Your task to perform on an android device: turn pop-ups off in chrome Image 0: 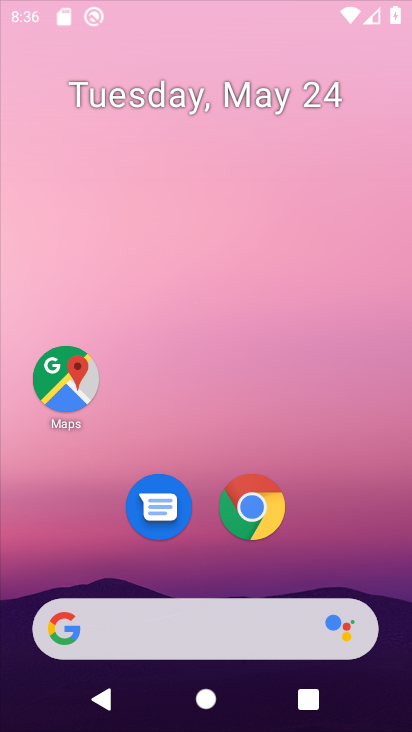
Step 0: drag from (338, 84) to (339, 32)
Your task to perform on an android device: turn pop-ups off in chrome Image 1: 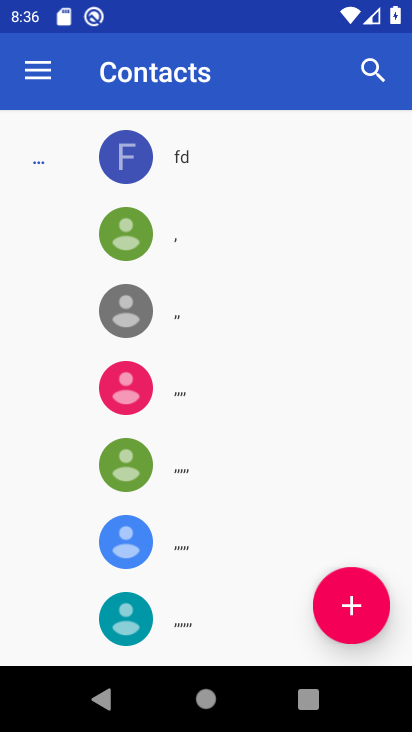
Step 1: press home button
Your task to perform on an android device: turn pop-ups off in chrome Image 2: 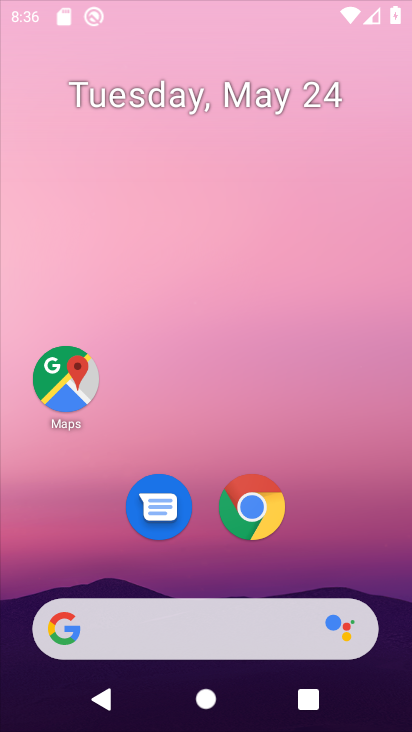
Step 2: drag from (205, 563) to (319, 47)
Your task to perform on an android device: turn pop-ups off in chrome Image 3: 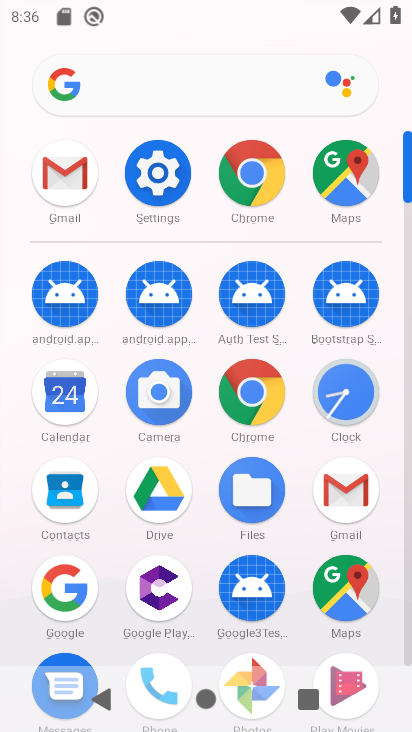
Step 3: click (255, 170)
Your task to perform on an android device: turn pop-ups off in chrome Image 4: 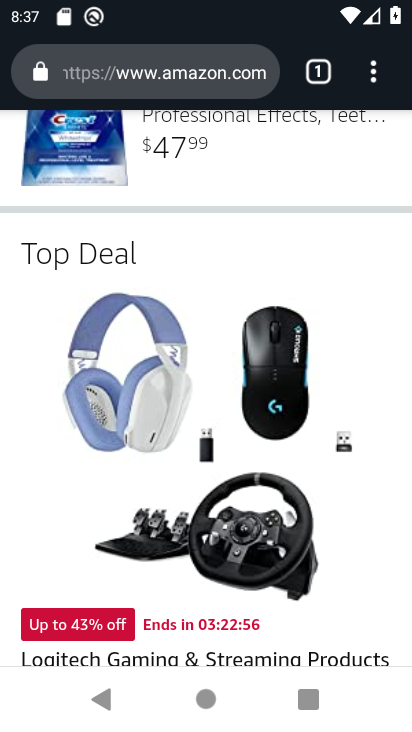
Step 4: drag from (259, 215) to (120, 727)
Your task to perform on an android device: turn pop-ups off in chrome Image 5: 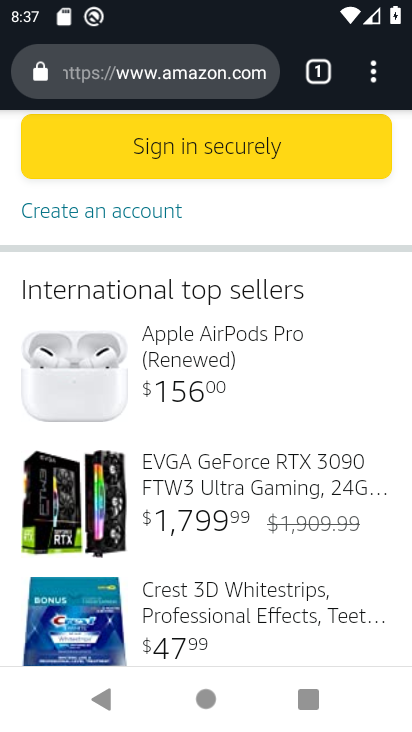
Step 5: click (382, 73)
Your task to perform on an android device: turn pop-ups off in chrome Image 6: 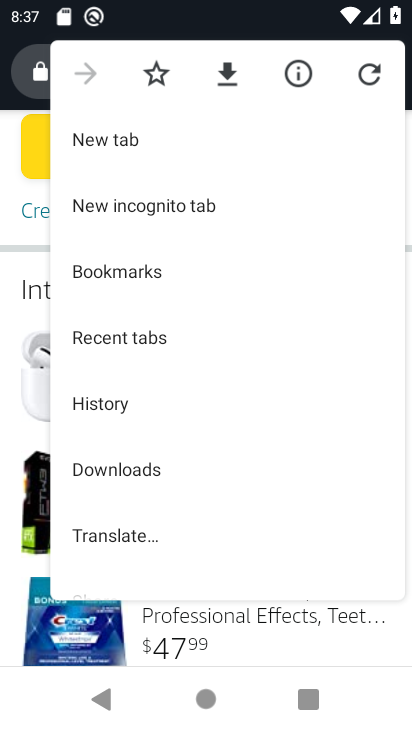
Step 6: drag from (177, 497) to (331, 171)
Your task to perform on an android device: turn pop-ups off in chrome Image 7: 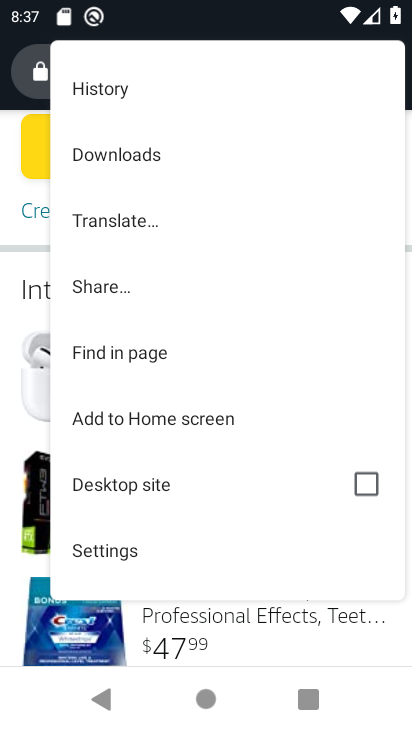
Step 7: click (125, 545)
Your task to perform on an android device: turn pop-ups off in chrome Image 8: 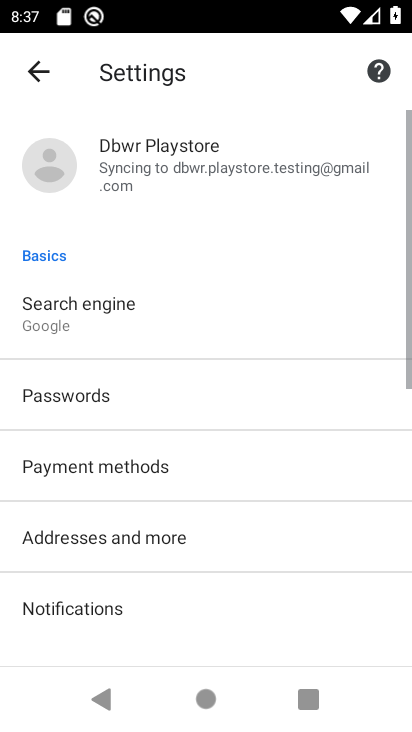
Step 8: drag from (186, 575) to (223, 100)
Your task to perform on an android device: turn pop-ups off in chrome Image 9: 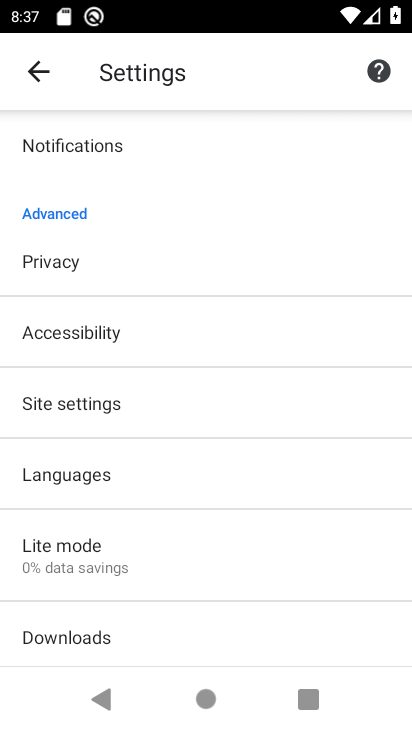
Step 9: drag from (170, 583) to (264, 220)
Your task to perform on an android device: turn pop-ups off in chrome Image 10: 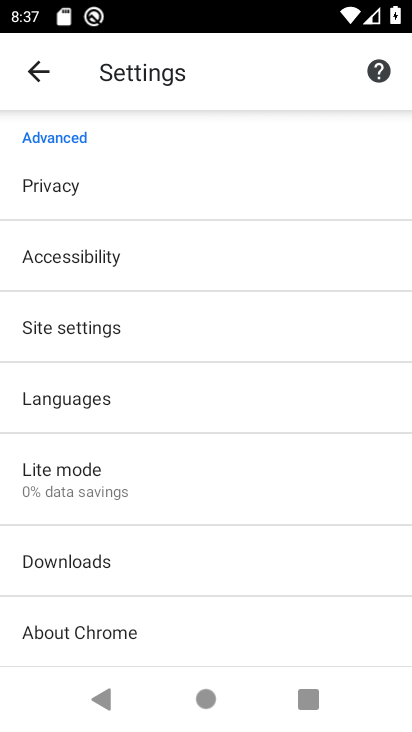
Step 10: drag from (177, 576) to (286, 218)
Your task to perform on an android device: turn pop-ups off in chrome Image 11: 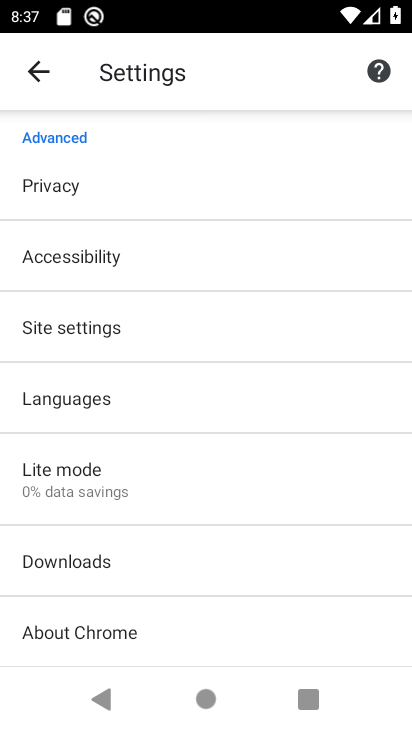
Step 11: drag from (214, 529) to (252, 283)
Your task to perform on an android device: turn pop-ups off in chrome Image 12: 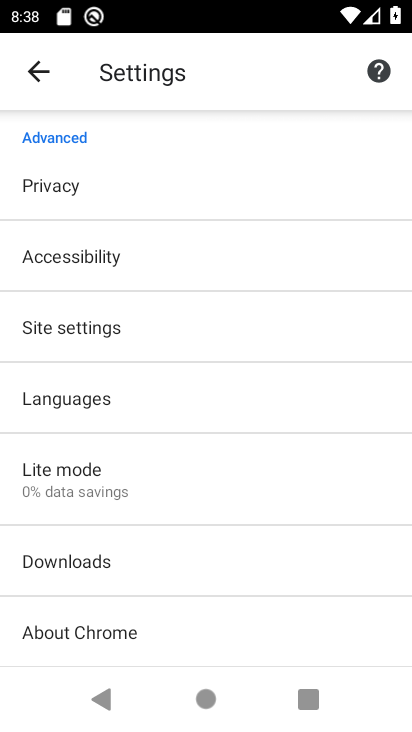
Step 12: click (124, 338)
Your task to perform on an android device: turn pop-ups off in chrome Image 13: 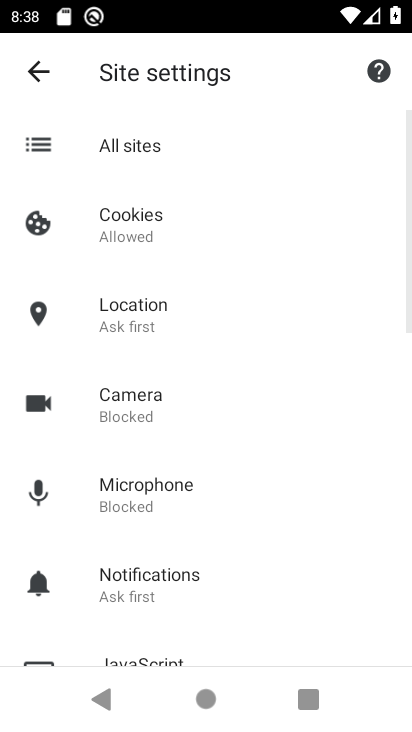
Step 13: drag from (200, 551) to (330, 51)
Your task to perform on an android device: turn pop-ups off in chrome Image 14: 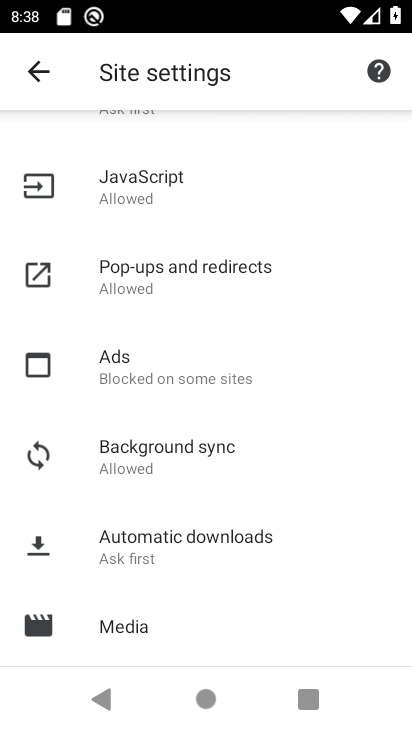
Step 14: click (136, 278)
Your task to perform on an android device: turn pop-ups off in chrome Image 15: 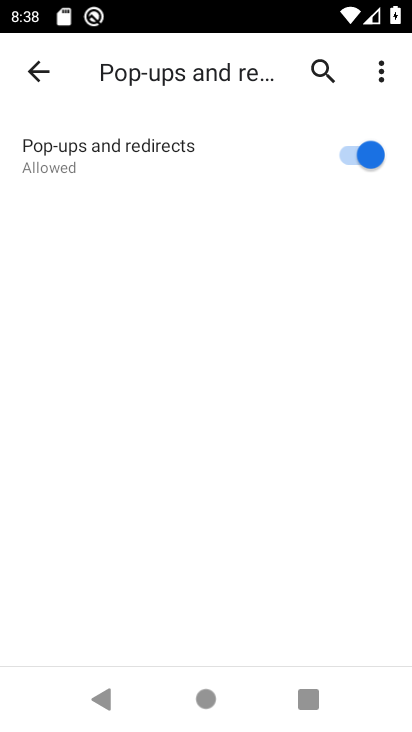
Step 15: click (349, 152)
Your task to perform on an android device: turn pop-ups off in chrome Image 16: 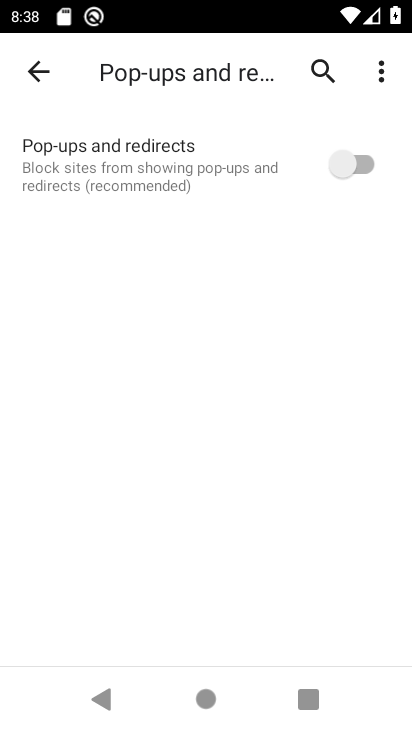
Step 16: task complete